Your task to perform on an android device: Open Youtube and go to "Your channel" Image 0: 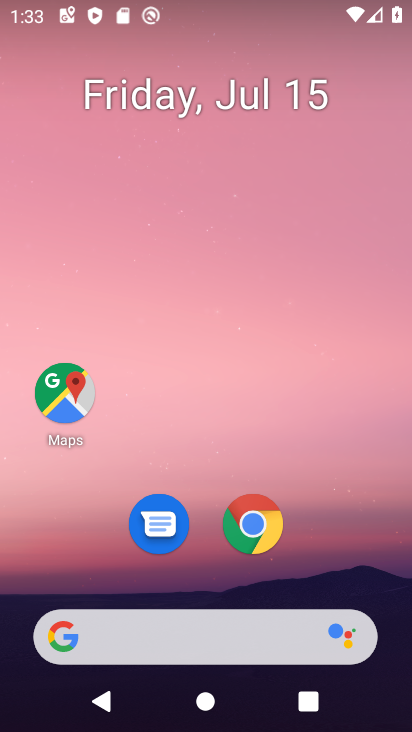
Step 0: press home button
Your task to perform on an android device: Open Youtube and go to "Your channel" Image 1: 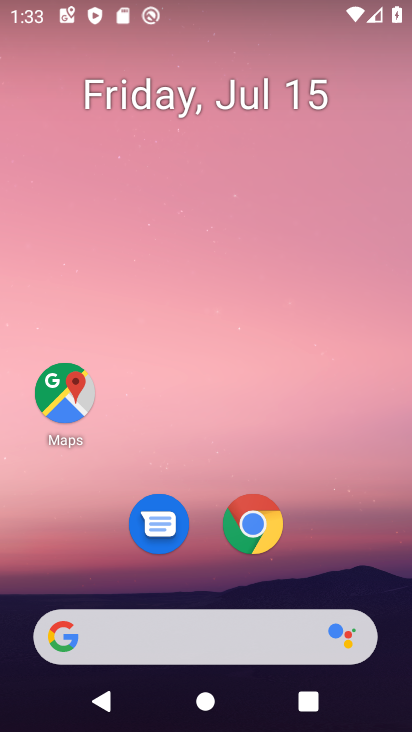
Step 1: drag from (208, 646) to (299, 222)
Your task to perform on an android device: Open Youtube and go to "Your channel" Image 2: 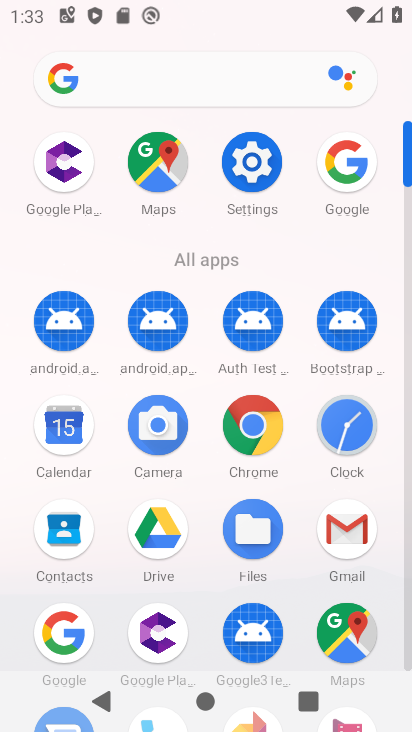
Step 2: drag from (211, 660) to (333, 162)
Your task to perform on an android device: Open Youtube and go to "Your channel" Image 3: 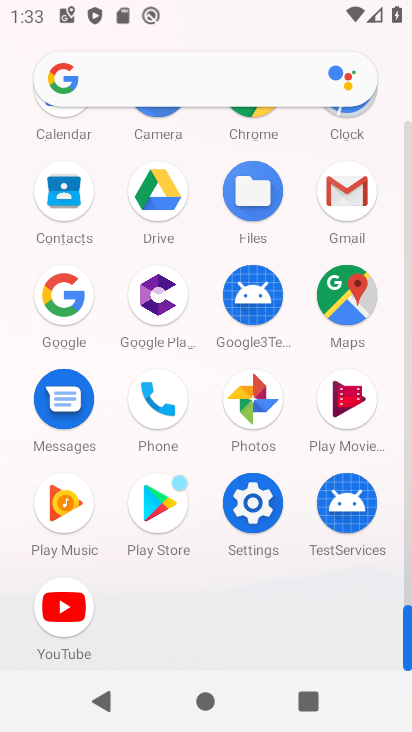
Step 3: click (60, 614)
Your task to perform on an android device: Open Youtube and go to "Your channel" Image 4: 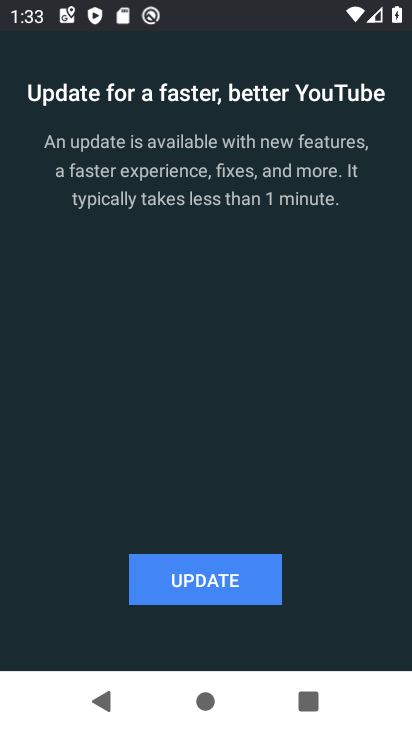
Step 4: click (192, 599)
Your task to perform on an android device: Open Youtube and go to "Your channel" Image 5: 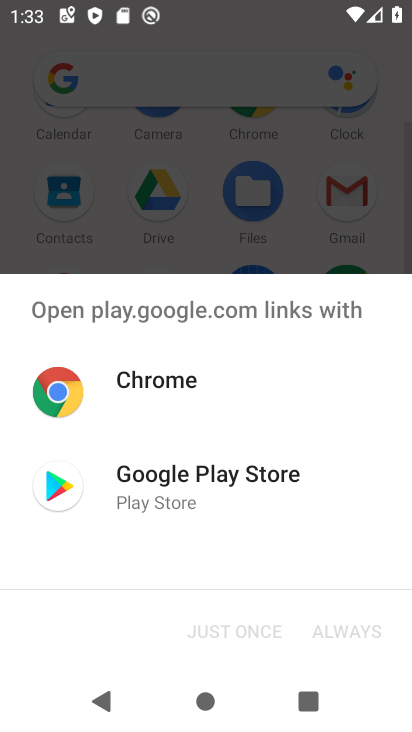
Step 5: click (212, 472)
Your task to perform on an android device: Open Youtube and go to "Your channel" Image 6: 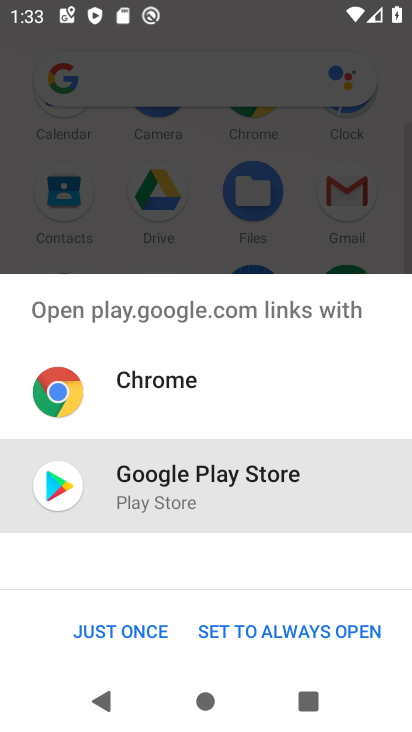
Step 6: click (124, 633)
Your task to perform on an android device: Open Youtube and go to "Your channel" Image 7: 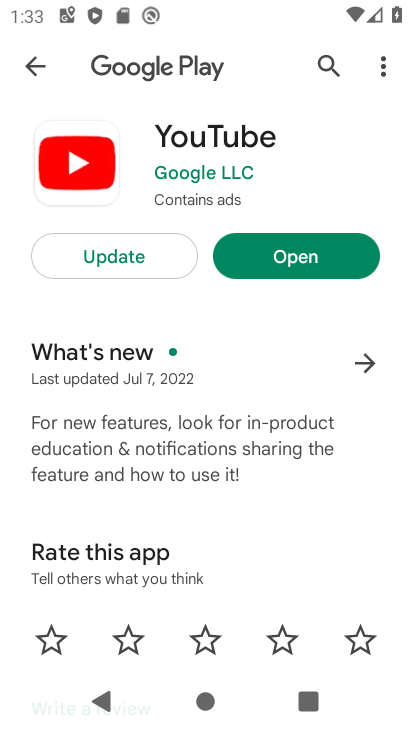
Step 7: click (172, 250)
Your task to perform on an android device: Open Youtube and go to "Your channel" Image 8: 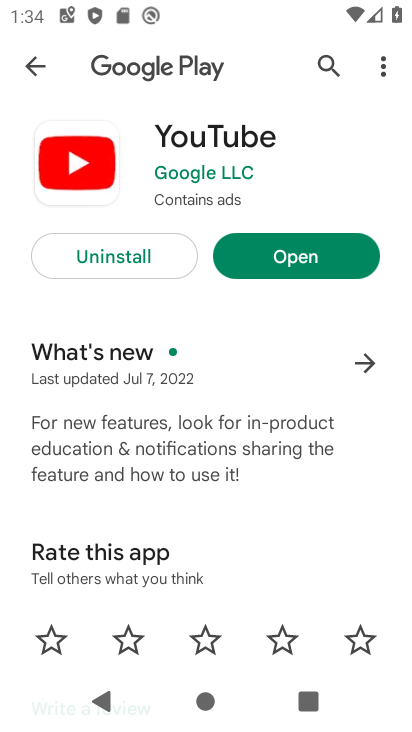
Step 8: click (296, 258)
Your task to perform on an android device: Open Youtube and go to "Your channel" Image 9: 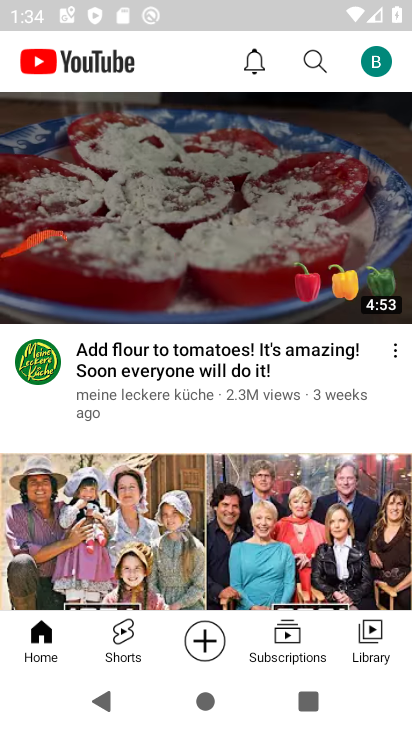
Step 9: click (379, 63)
Your task to perform on an android device: Open Youtube and go to "Your channel" Image 10: 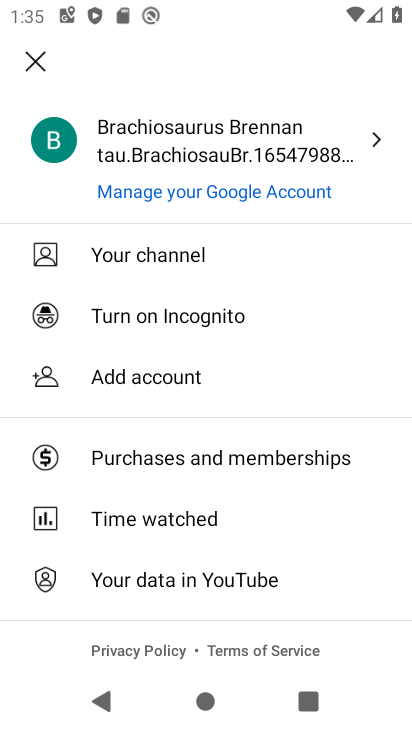
Step 10: click (169, 258)
Your task to perform on an android device: Open Youtube and go to "Your channel" Image 11: 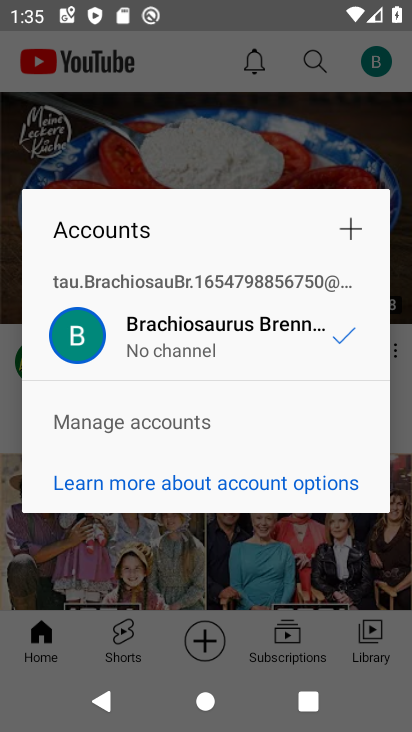
Step 11: task complete